Your task to perform on an android device: Search for "dell xps" on amazon, select the first entry, and add it to the cart. Image 0: 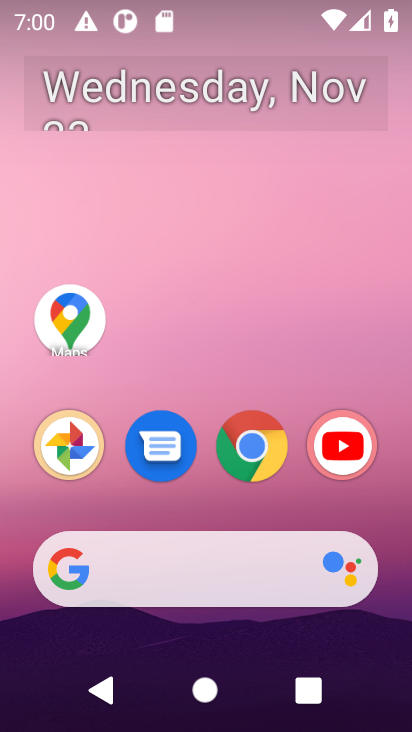
Step 0: click (242, 568)
Your task to perform on an android device: Search for "dell xps" on amazon, select the first entry, and add it to the cart. Image 1: 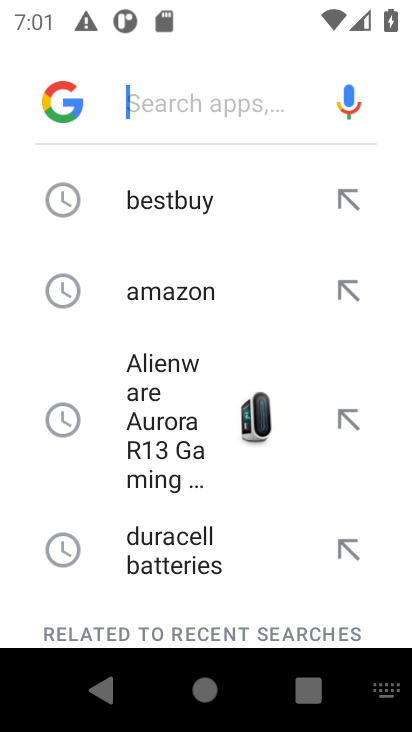
Step 1: type "amazon"
Your task to perform on an android device: Search for "dell xps" on amazon, select the first entry, and add it to the cart. Image 2: 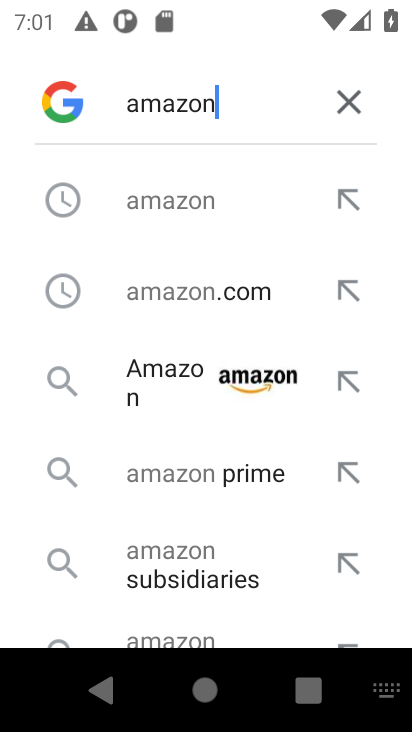
Step 2: click (218, 389)
Your task to perform on an android device: Search for "dell xps" on amazon, select the first entry, and add it to the cart. Image 3: 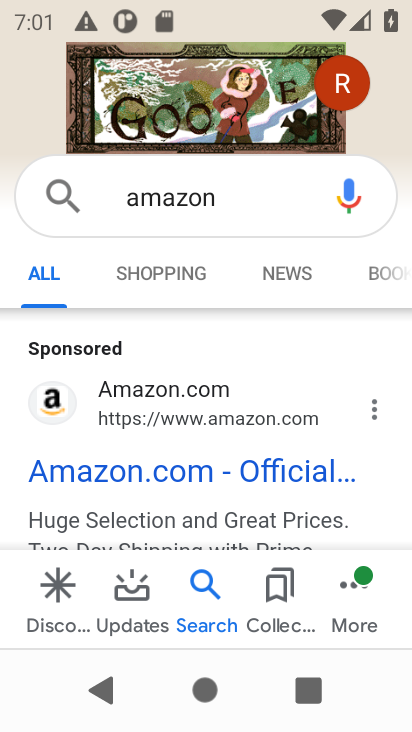
Step 3: click (218, 389)
Your task to perform on an android device: Search for "dell xps" on amazon, select the first entry, and add it to the cart. Image 4: 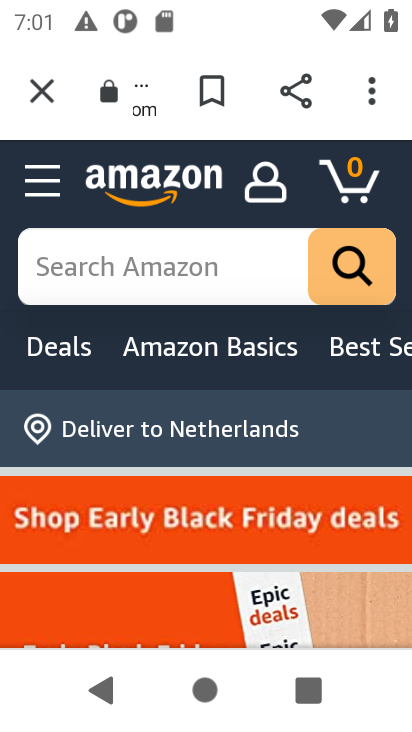
Step 4: click (157, 281)
Your task to perform on an android device: Search for "dell xps" on amazon, select the first entry, and add it to the cart. Image 5: 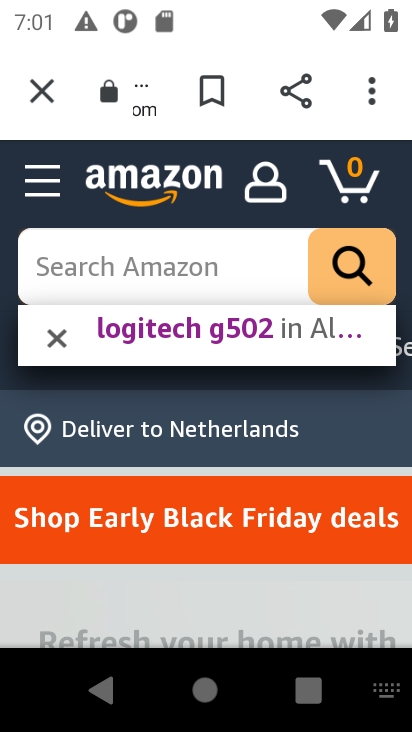
Step 5: type "dell xps"
Your task to perform on an android device: Search for "dell xps" on amazon, select the first entry, and add it to the cart. Image 6: 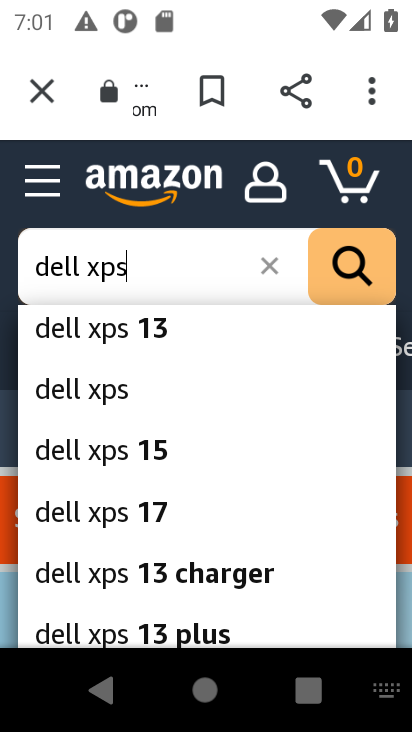
Step 6: click (150, 415)
Your task to perform on an android device: Search for "dell xps" on amazon, select the first entry, and add it to the cart. Image 7: 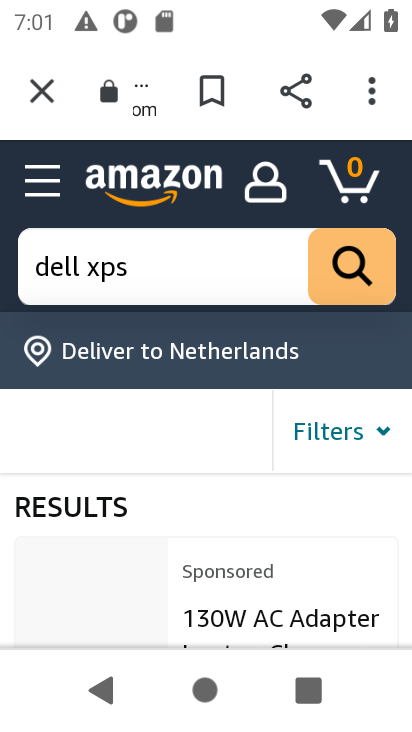
Step 7: click (186, 601)
Your task to perform on an android device: Search for "dell xps" on amazon, select the first entry, and add it to the cart. Image 8: 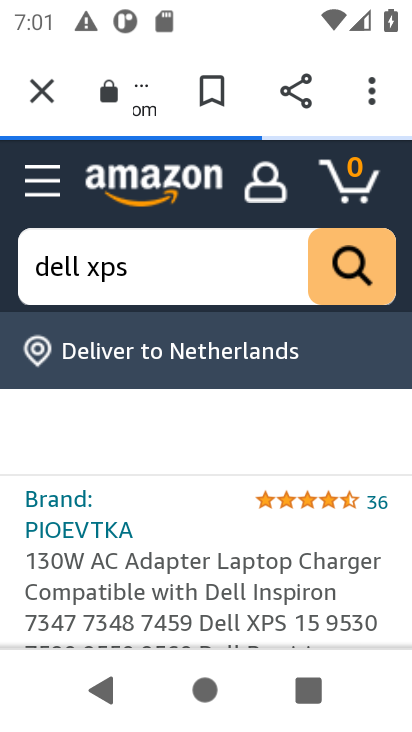
Step 8: drag from (186, 601) to (329, 170)
Your task to perform on an android device: Search for "dell xps" on amazon, select the first entry, and add it to the cart. Image 9: 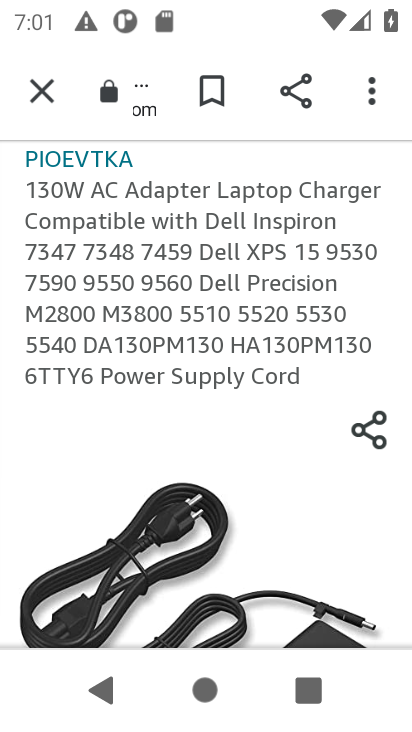
Step 9: drag from (233, 527) to (268, 123)
Your task to perform on an android device: Search for "dell xps" on amazon, select the first entry, and add it to the cart. Image 10: 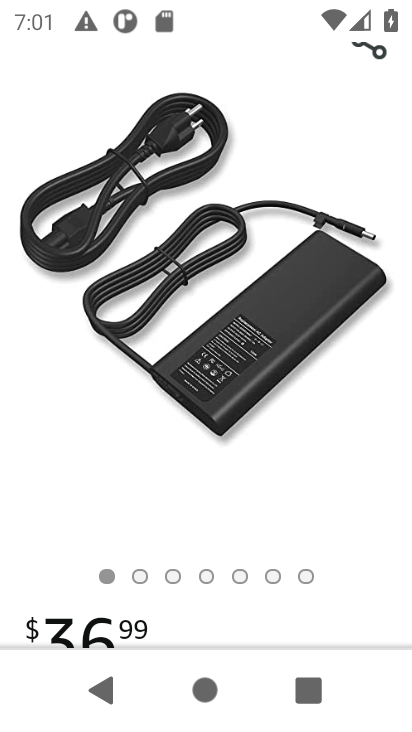
Step 10: drag from (171, 586) to (291, 19)
Your task to perform on an android device: Search for "dell xps" on amazon, select the first entry, and add it to the cart. Image 11: 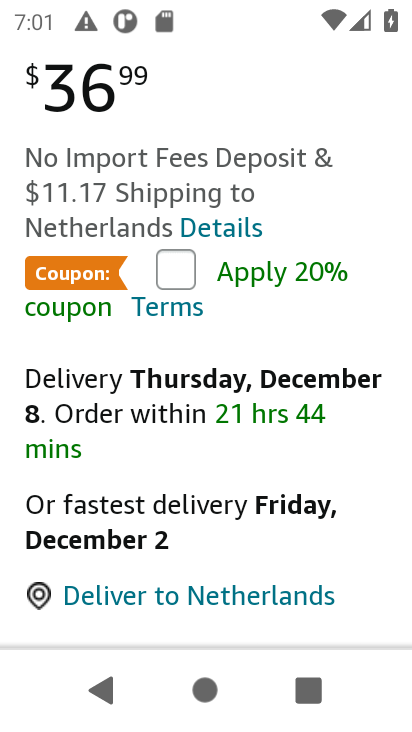
Step 11: drag from (229, 587) to (276, 137)
Your task to perform on an android device: Search for "dell xps" on amazon, select the first entry, and add it to the cart. Image 12: 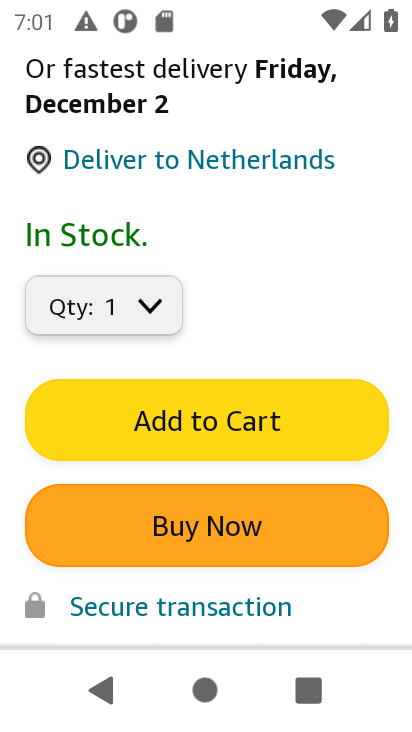
Step 12: click (237, 408)
Your task to perform on an android device: Search for "dell xps" on amazon, select the first entry, and add it to the cart. Image 13: 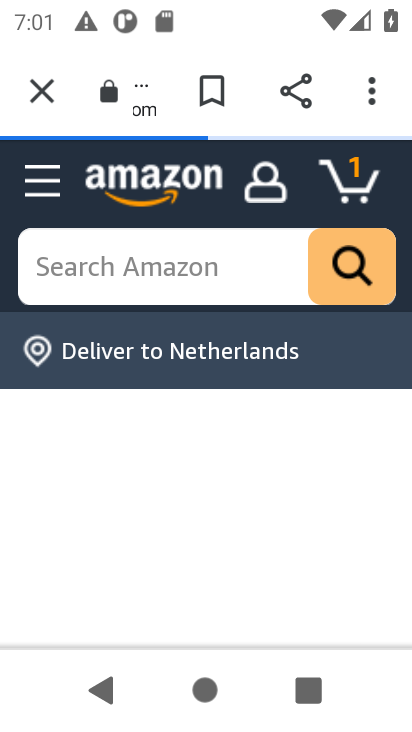
Step 13: task complete